Your task to perform on an android device: Open sound settings Image 0: 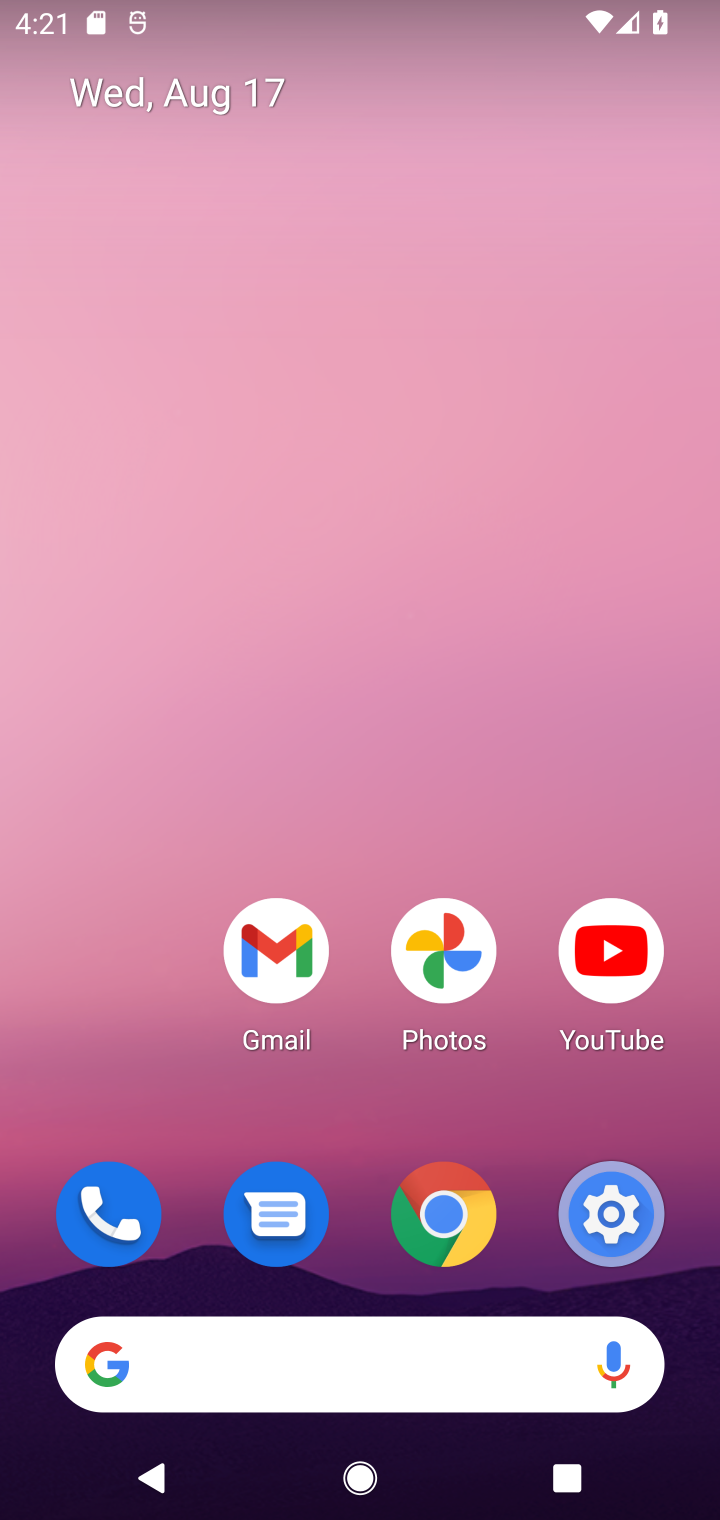
Step 0: drag from (398, 1038) to (229, 208)
Your task to perform on an android device: Open sound settings Image 1: 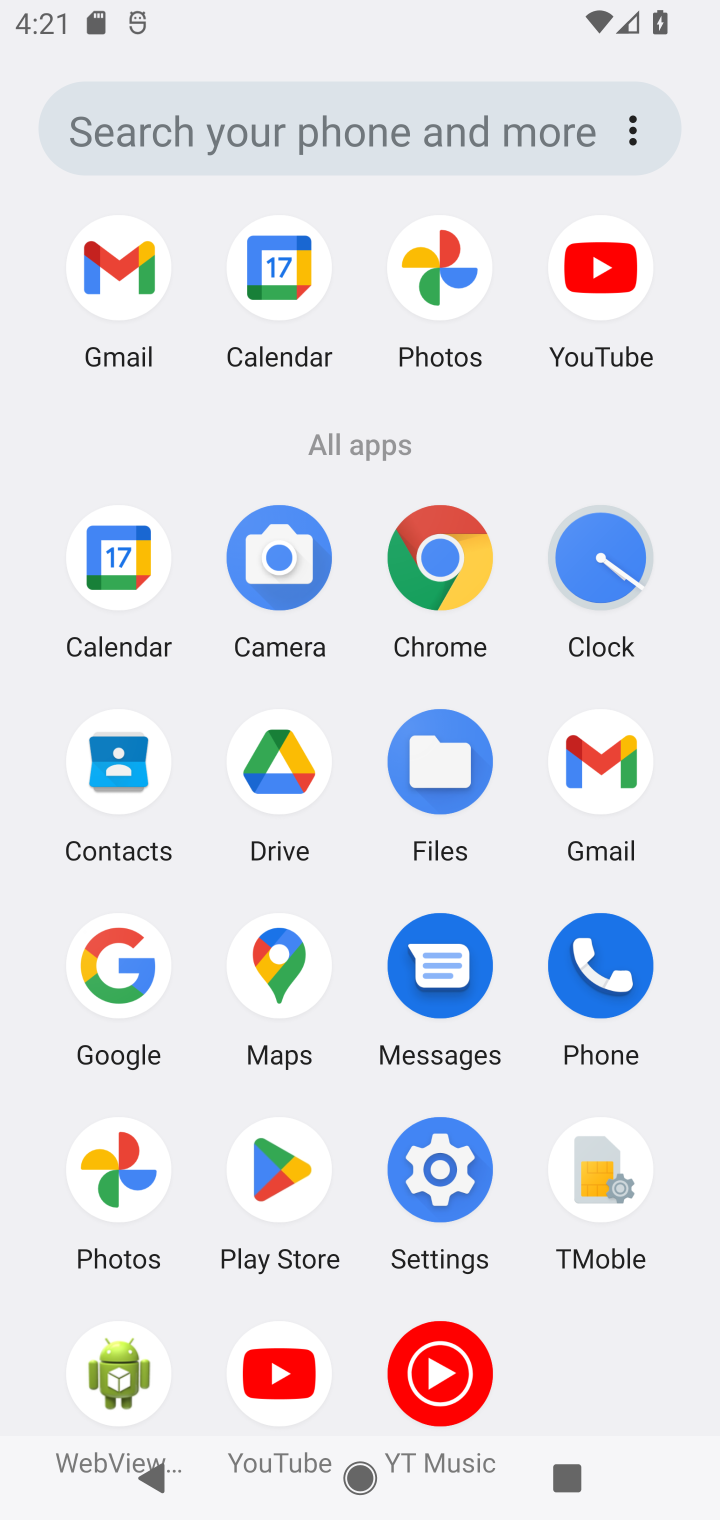
Step 1: click (447, 1154)
Your task to perform on an android device: Open sound settings Image 2: 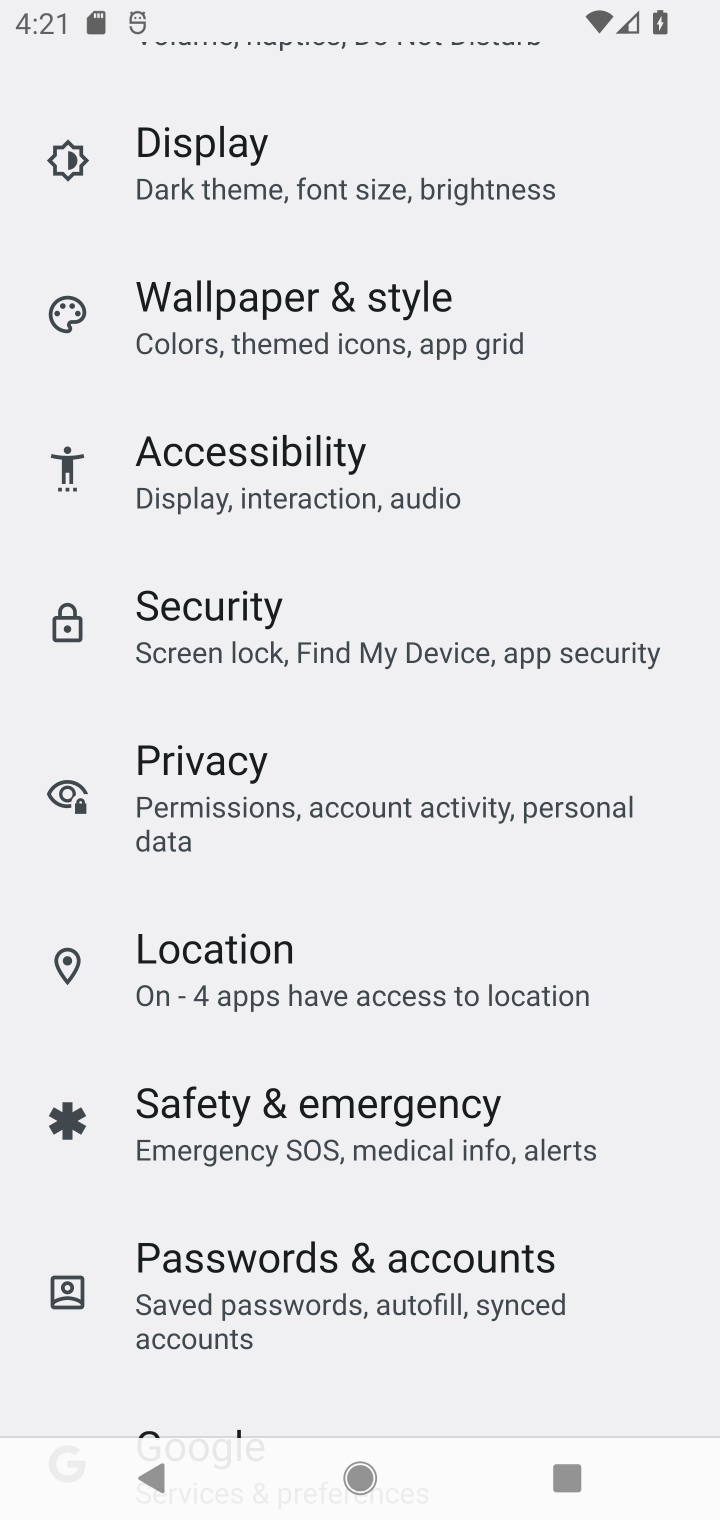
Step 2: drag from (267, 811) to (339, 481)
Your task to perform on an android device: Open sound settings Image 3: 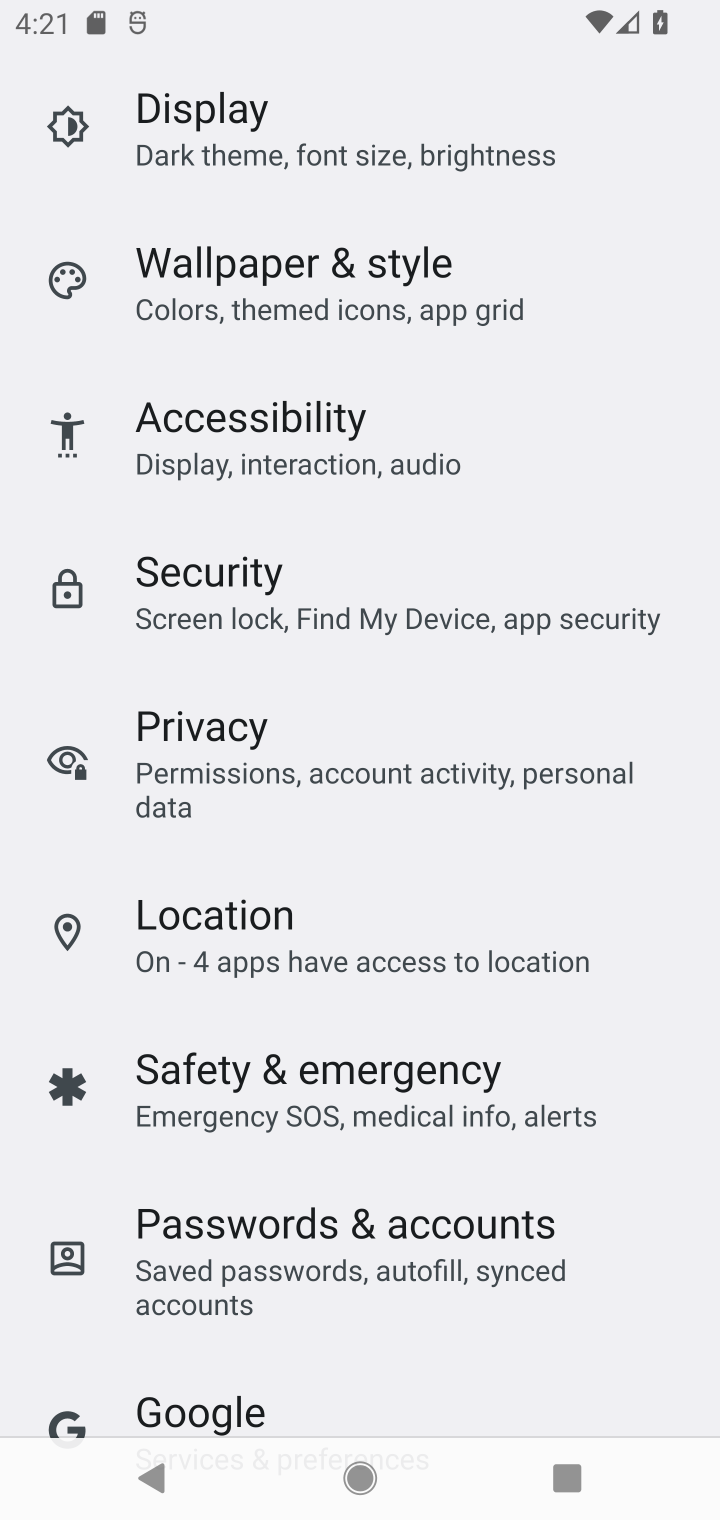
Step 3: drag from (371, 981) to (405, 321)
Your task to perform on an android device: Open sound settings Image 4: 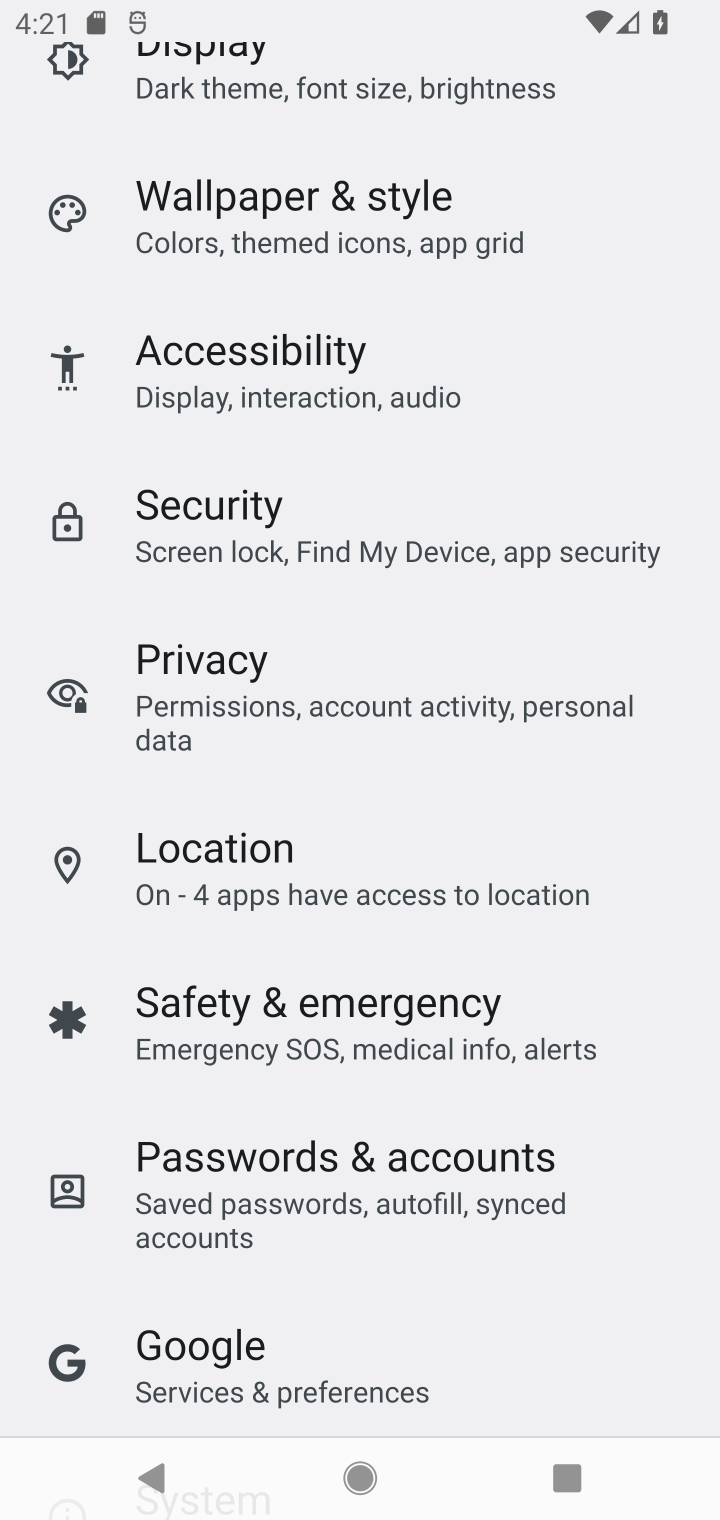
Step 4: drag from (439, 686) to (565, 1305)
Your task to perform on an android device: Open sound settings Image 5: 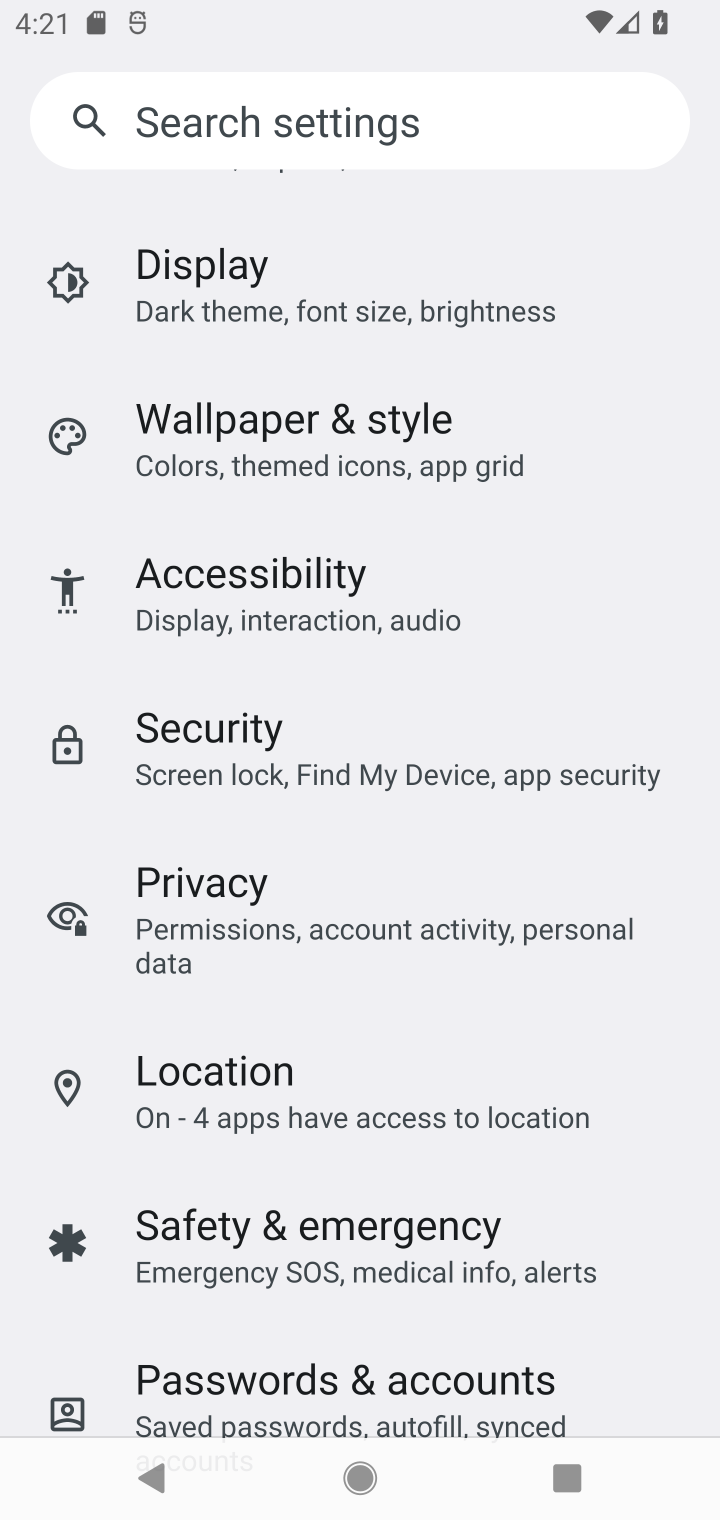
Step 5: drag from (437, 518) to (479, 932)
Your task to perform on an android device: Open sound settings Image 6: 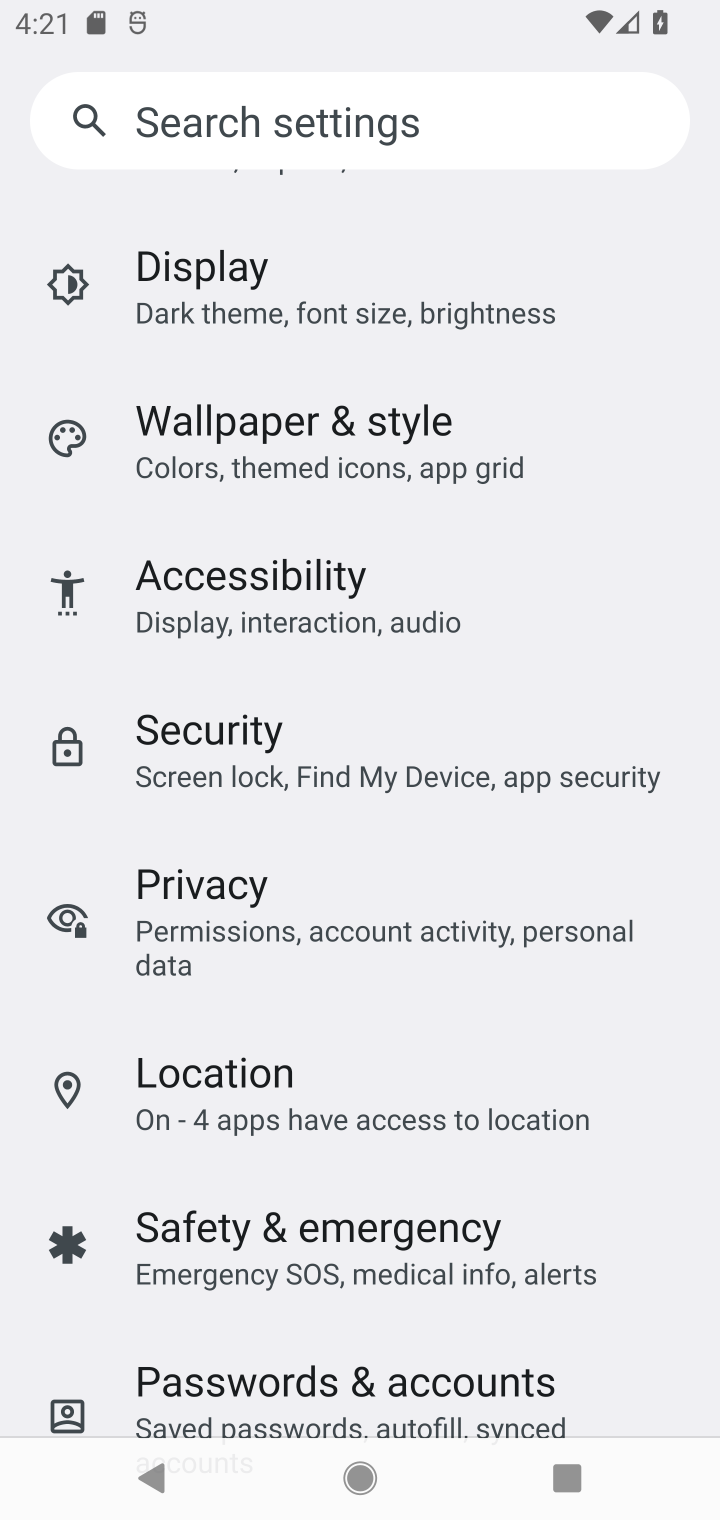
Step 6: drag from (432, 720) to (584, 1389)
Your task to perform on an android device: Open sound settings Image 7: 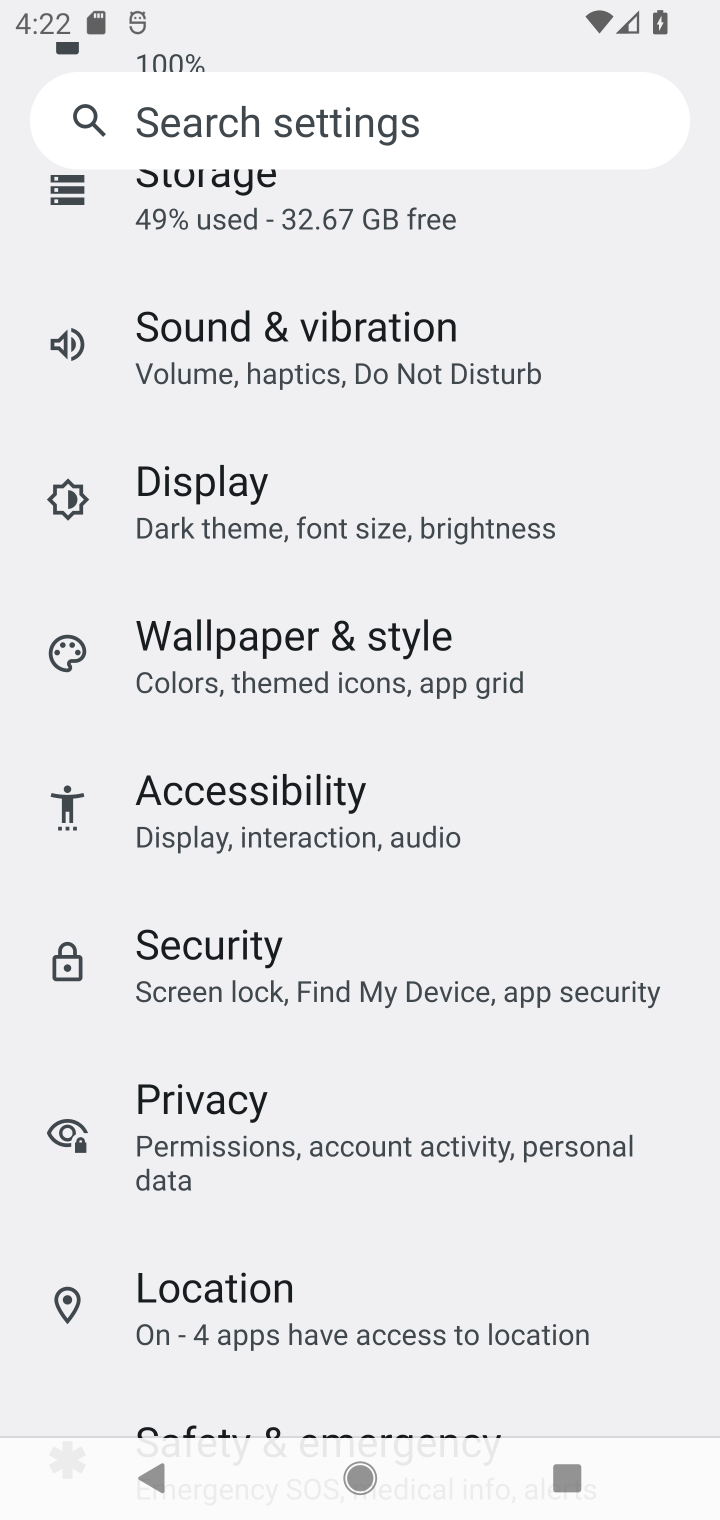
Step 7: click (230, 347)
Your task to perform on an android device: Open sound settings Image 8: 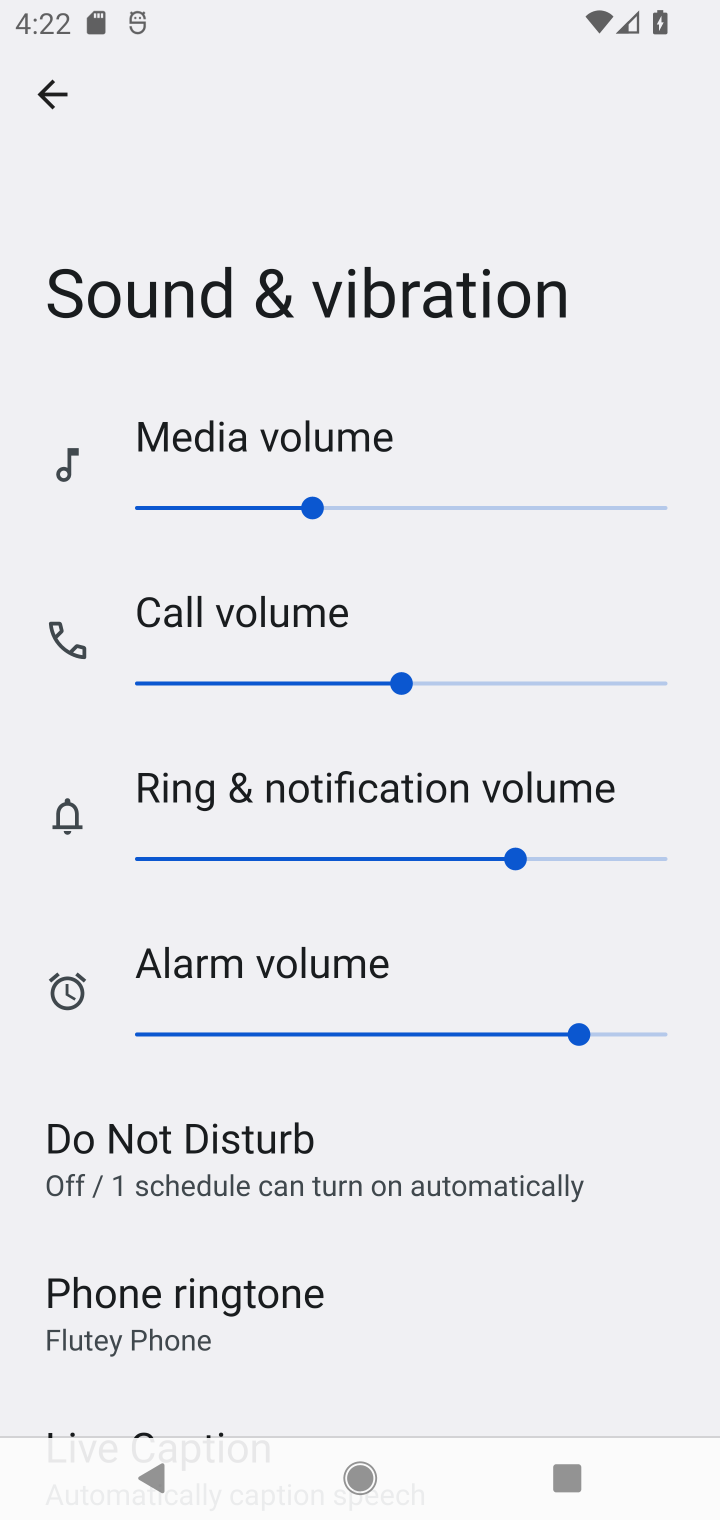
Step 8: task complete